Your task to perform on an android device: toggle improve location accuracy Image 0: 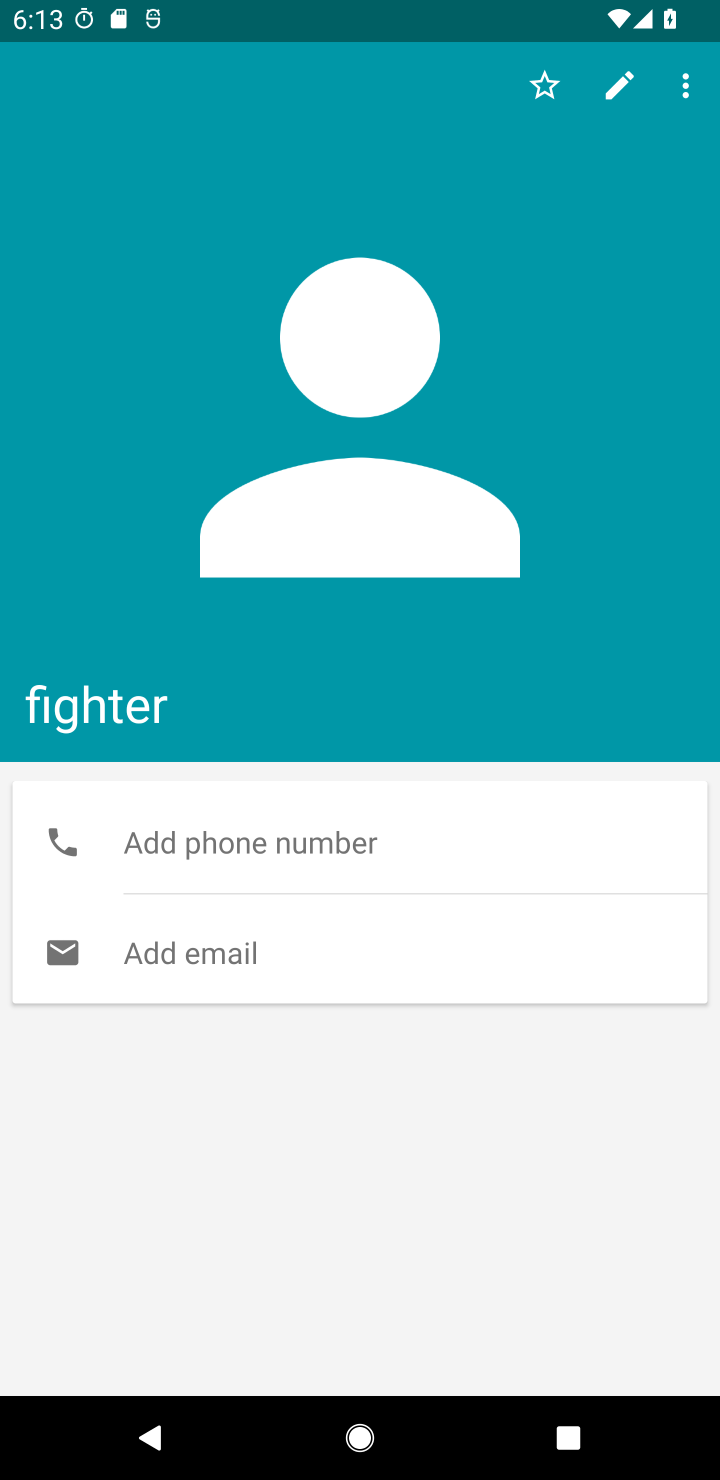
Step 0: press home button
Your task to perform on an android device: toggle improve location accuracy Image 1: 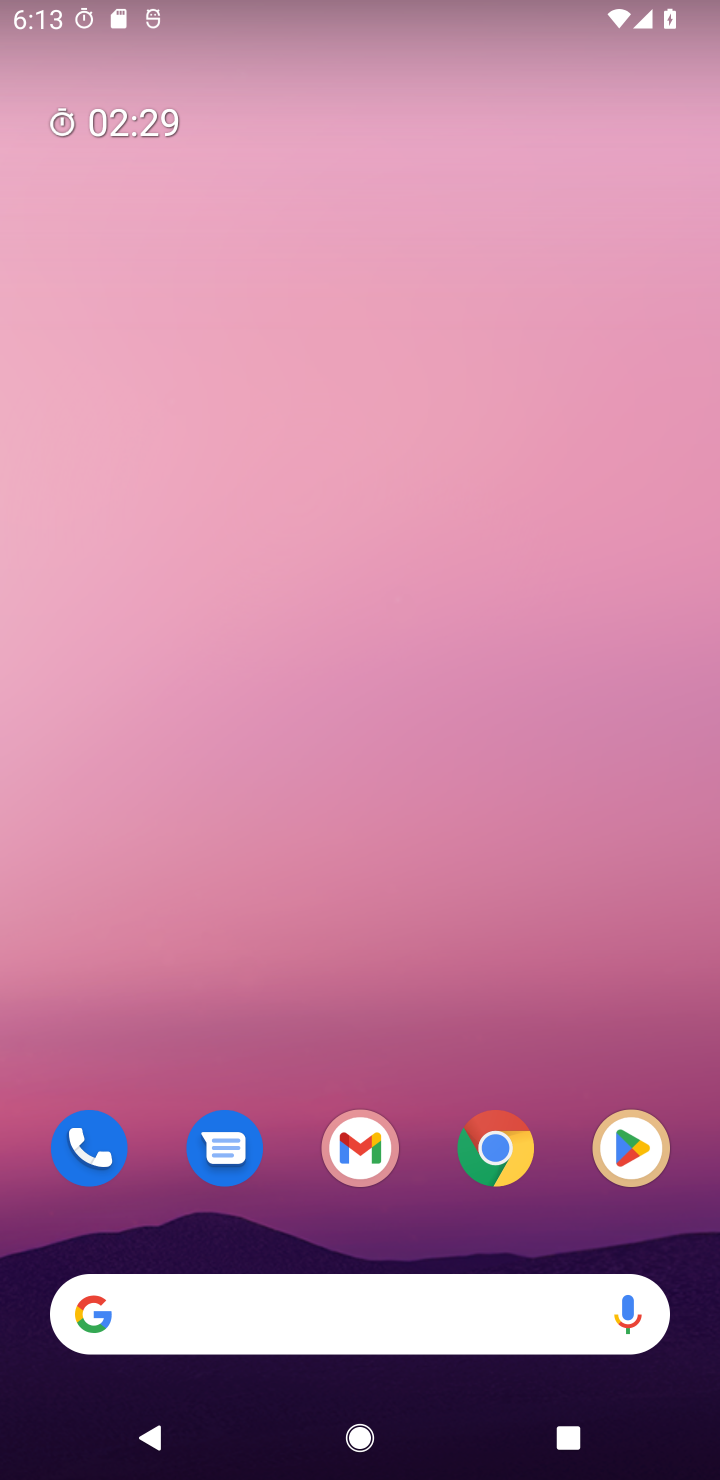
Step 1: drag from (346, 1202) to (331, 23)
Your task to perform on an android device: toggle improve location accuracy Image 2: 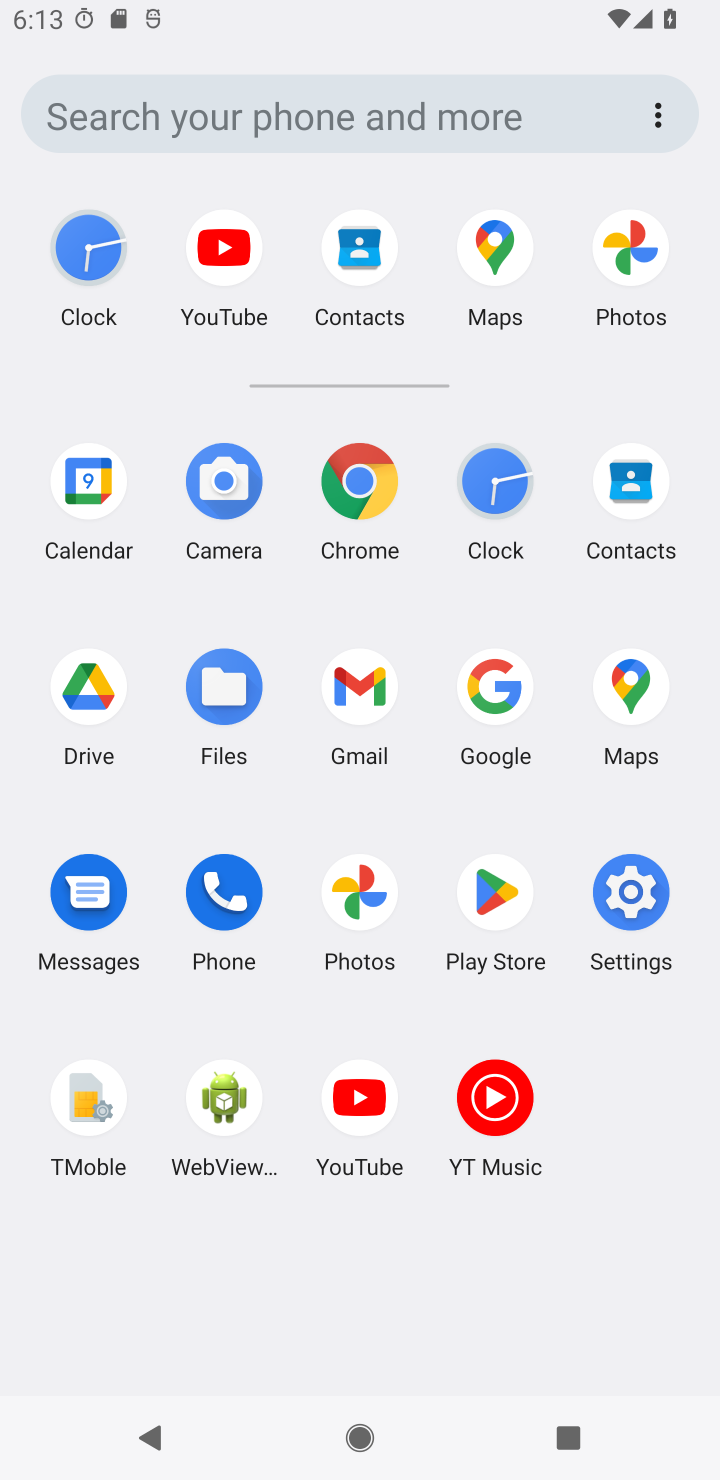
Step 2: click (623, 920)
Your task to perform on an android device: toggle improve location accuracy Image 3: 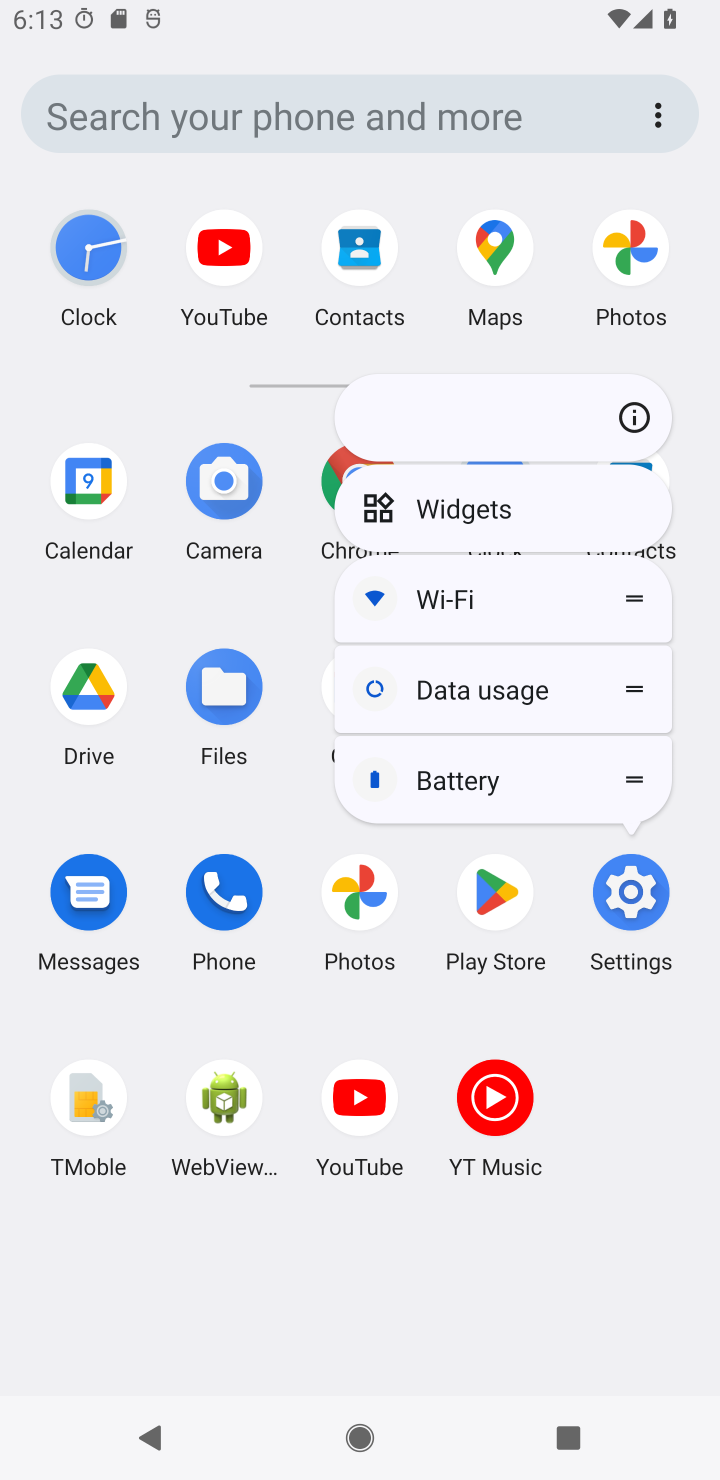
Step 3: click (627, 926)
Your task to perform on an android device: toggle improve location accuracy Image 4: 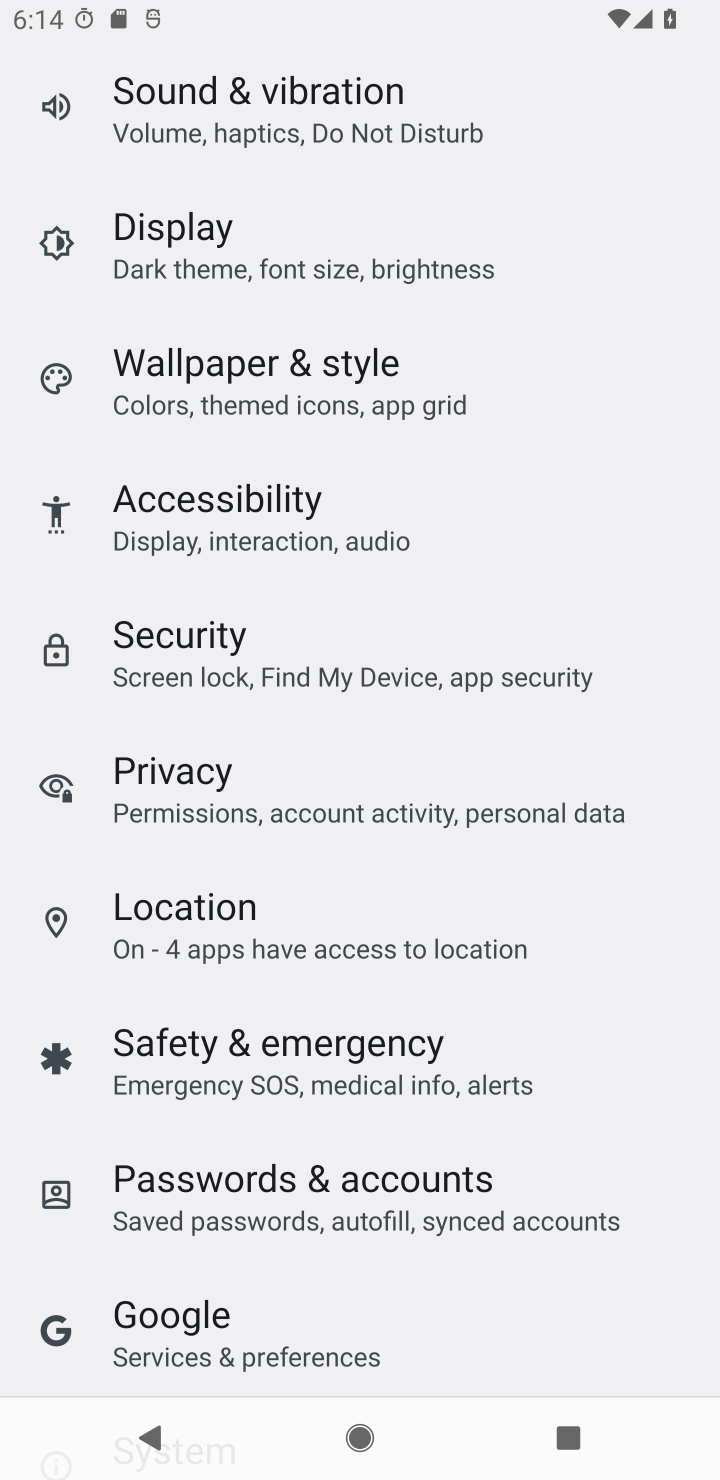
Step 4: click (286, 946)
Your task to perform on an android device: toggle improve location accuracy Image 5: 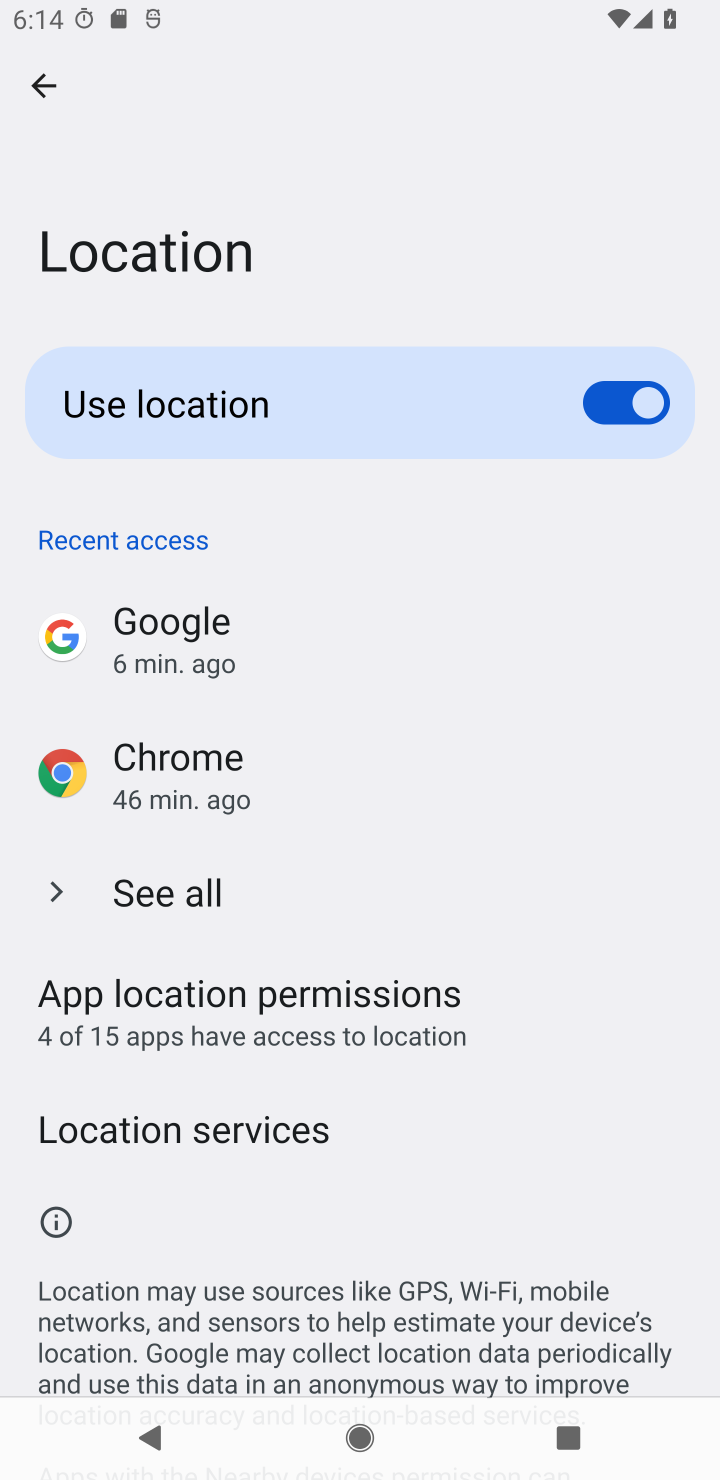
Step 5: click (287, 1132)
Your task to perform on an android device: toggle improve location accuracy Image 6: 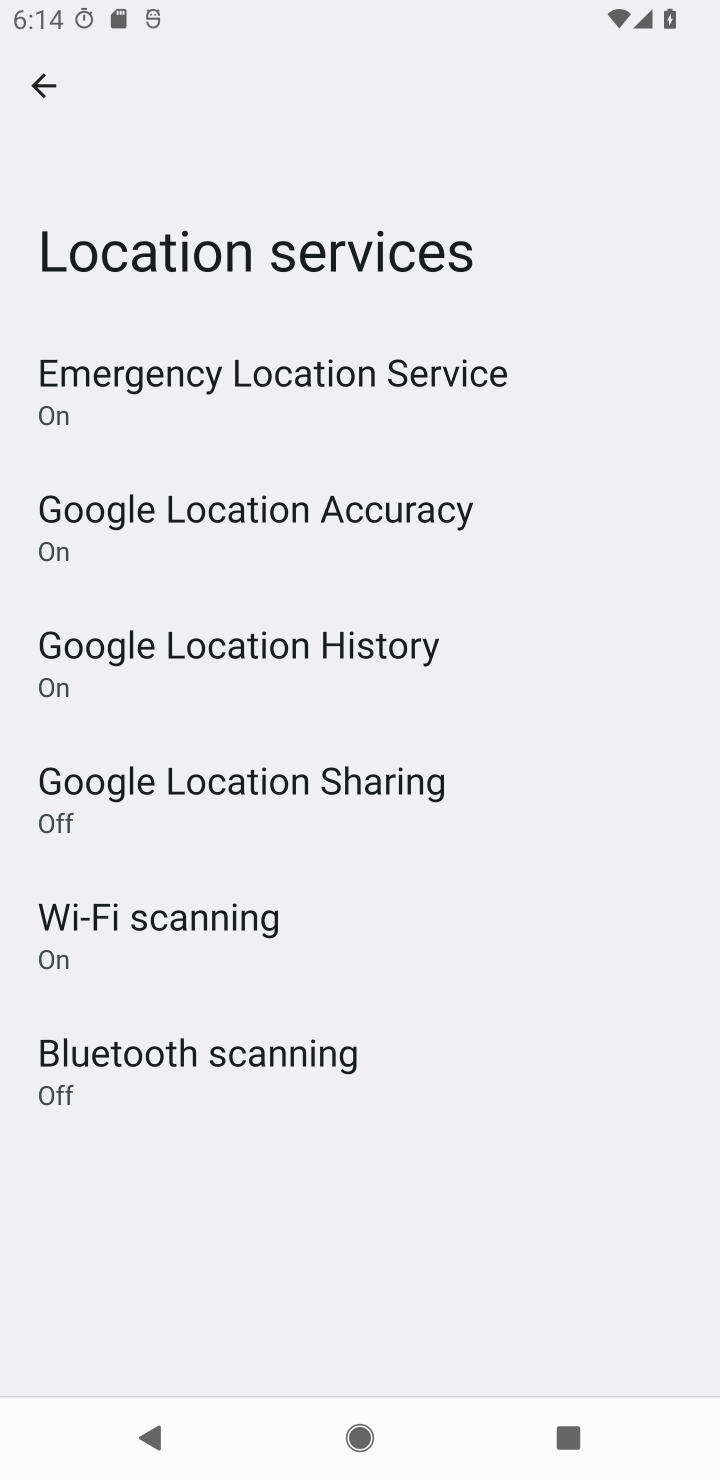
Step 6: click (338, 536)
Your task to perform on an android device: toggle improve location accuracy Image 7: 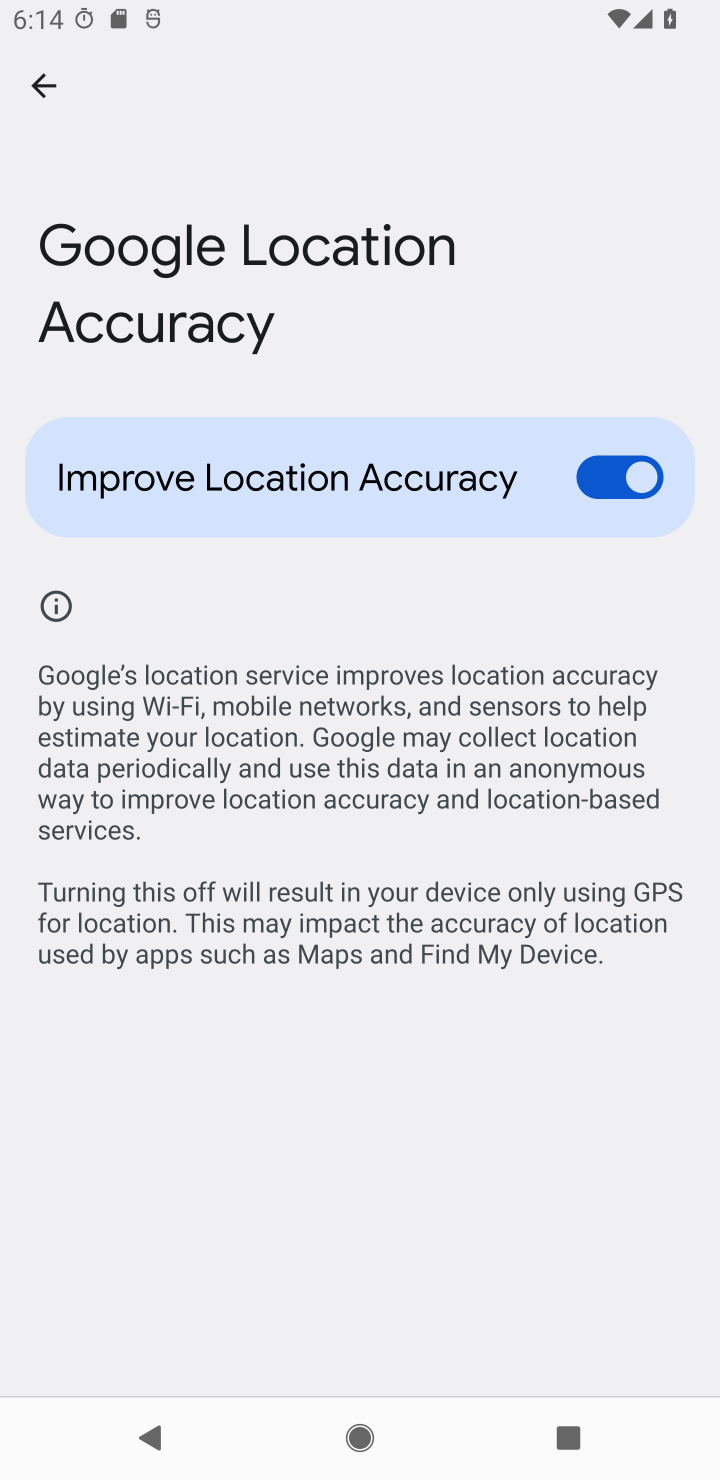
Step 7: click (554, 481)
Your task to perform on an android device: toggle improve location accuracy Image 8: 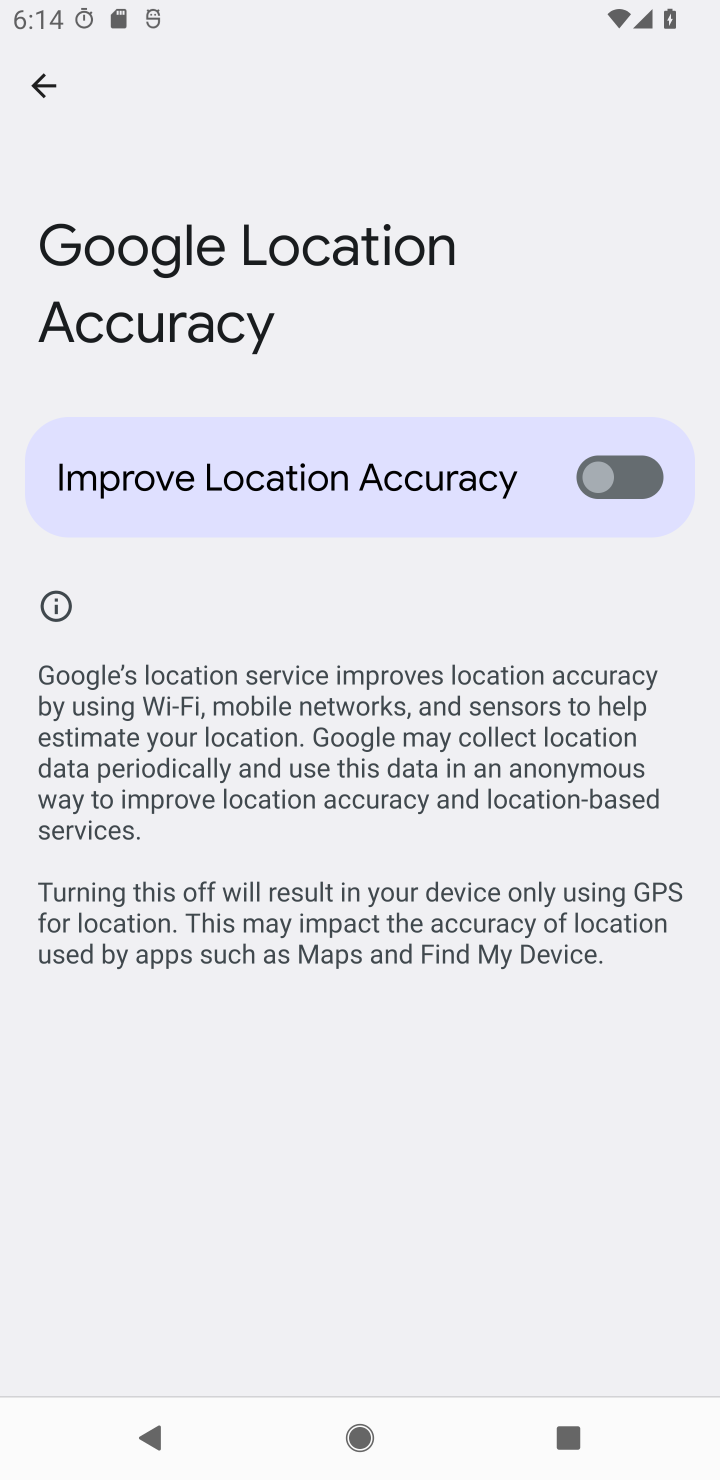
Step 8: task complete